Your task to perform on an android device: delete a single message in the gmail app Image 0: 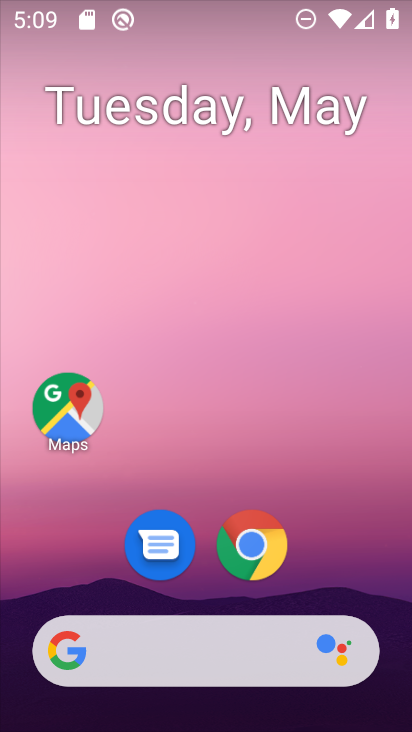
Step 0: drag from (316, 464) to (295, 23)
Your task to perform on an android device: delete a single message in the gmail app Image 1: 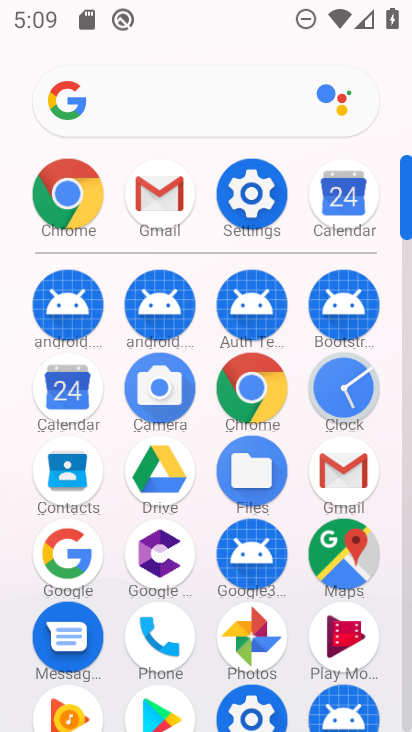
Step 1: drag from (11, 605) to (21, 288)
Your task to perform on an android device: delete a single message in the gmail app Image 2: 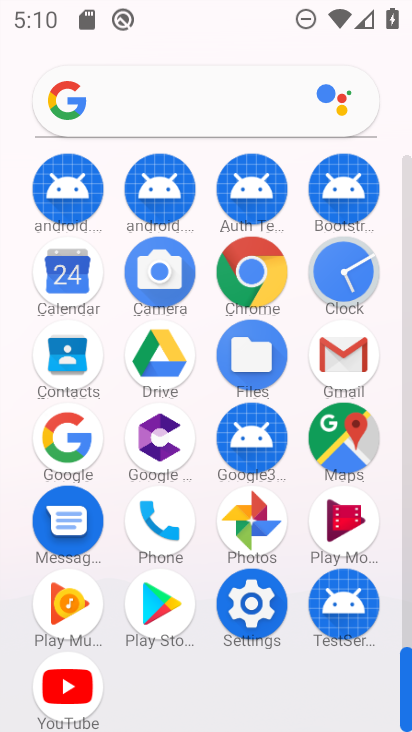
Step 2: click (338, 348)
Your task to perform on an android device: delete a single message in the gmail app Image 3: 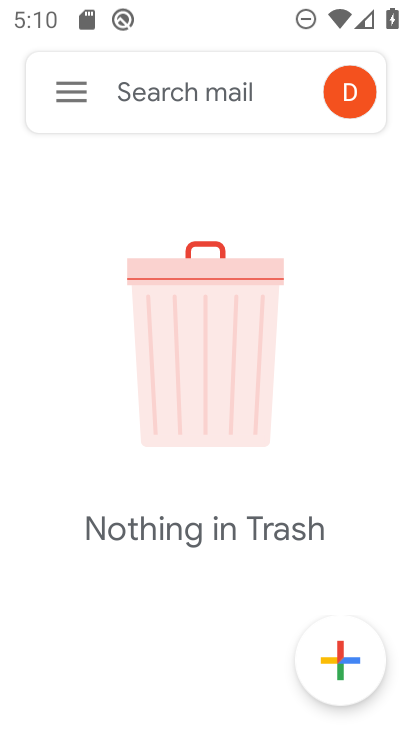
Step 3: click (85, 102)
Your task to perform on an android device: delete a single message in the gmail app Image 4: 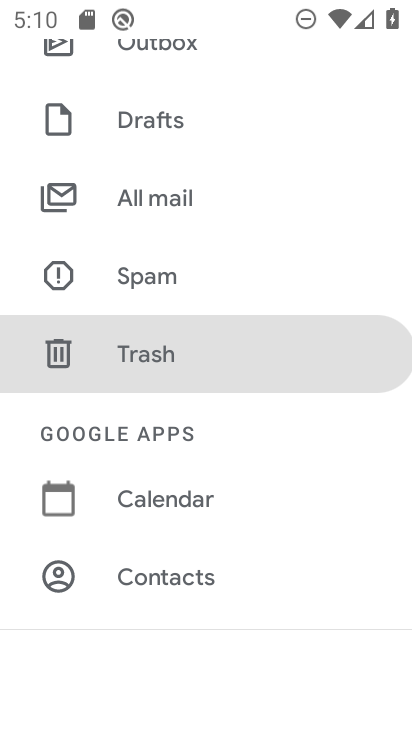
Step 4: click (163, 198)
Your task to perform on an android device: delete a single message in the gmail app Image 5: 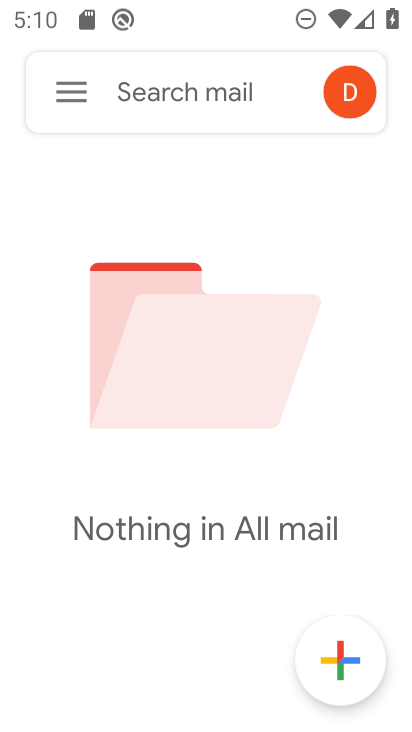
Step 5: click (66, 84)
Your task to perform on an android device: delete a single message in the gmail app Image 6: 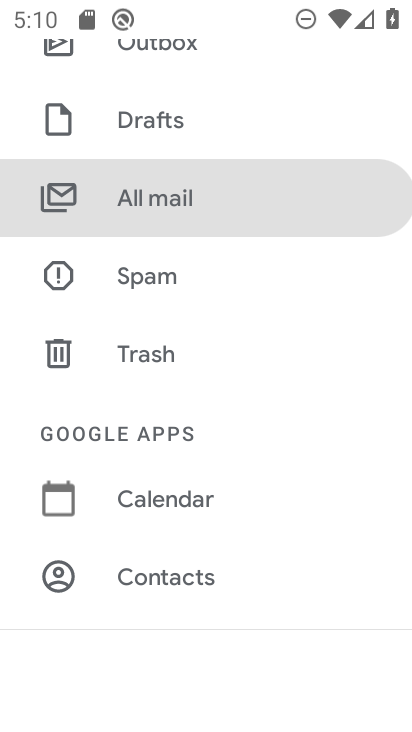
Step 6: drag from (192, 161) to (203, 551)
Your task to perform on an android device: delete a single message in the gmail app Image 7: 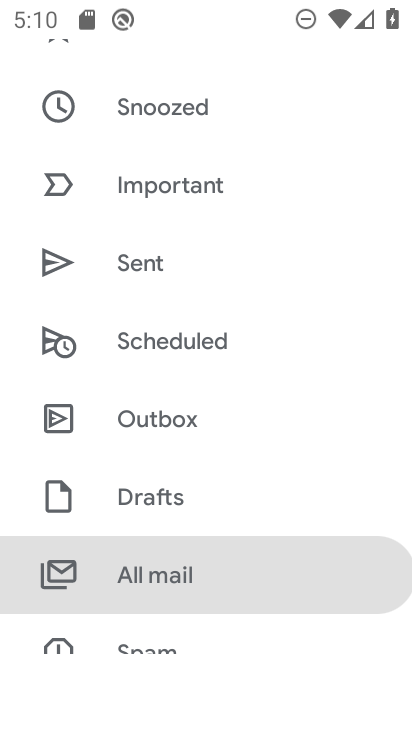
Step 7: drag from (260, 146) to (248, 567)
Your task to perform on an android device: delete a single message in the gmail app Image 8: 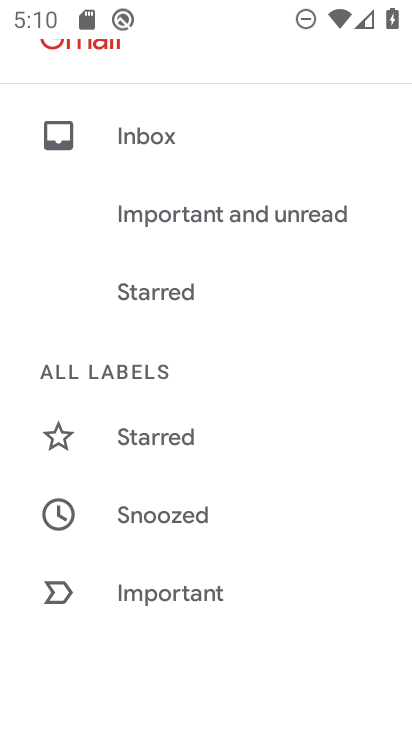
Step 8: drag from (265, 128) to (265, 541)
Your task to perform on an android device: delete a single message in the gmail app Image 9: 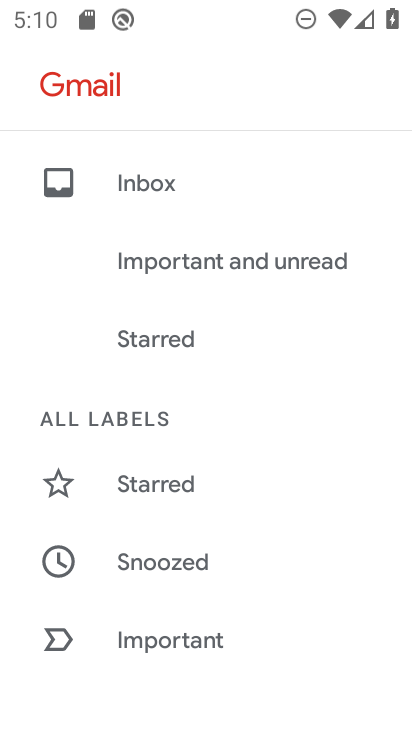
Step 9: drag from (182, 532) to (227, 171)
Your task to perform on an android device: delete a single message in the gmail app Image 10: 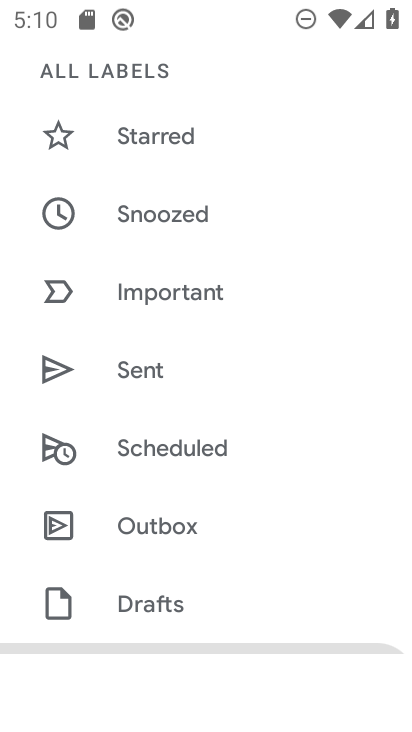
Step 10: drag from (270, 568) to (255, 180)
Your task to perform on an android device: delete a single message in the gmail app Image 11: 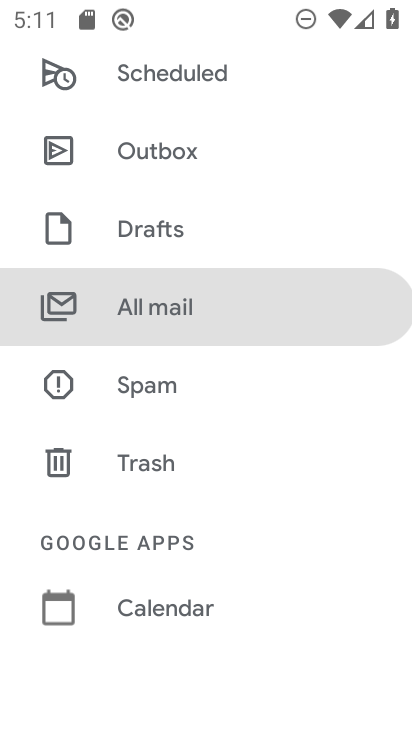
Step 11: click (172, 457)
Your task to perform on an android device: delete a single message in the gmail app Image 12: 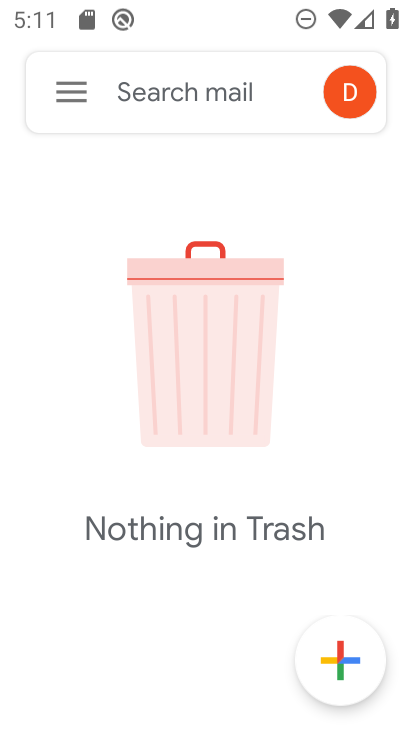
Step 12: click (55, 96)
Your task to perform on an android device: delete a single message in the gmail app Image 13: 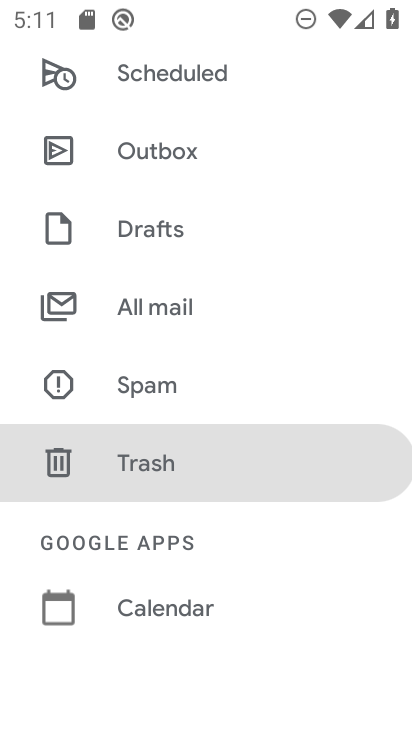
Step 13: drag from (243, 183) to (243, 472)
Your task to perform on an android device: delete a single message in the gmail app Image 14: 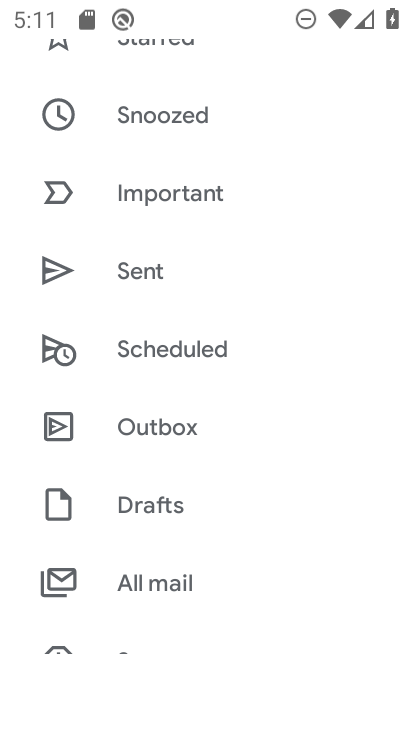
Step 14: click (164, 576)
Your task to perform on an android device: delete a single message in the gmail app Image 15: 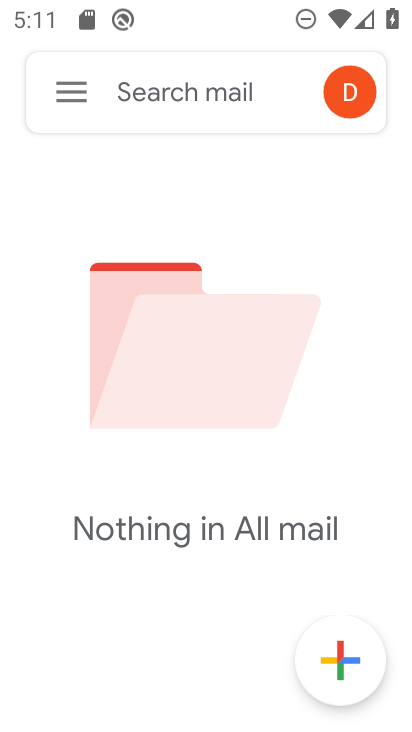
Step 15: task complete